Your task to perform on an android device: Go to Yahoo.com Image 0: 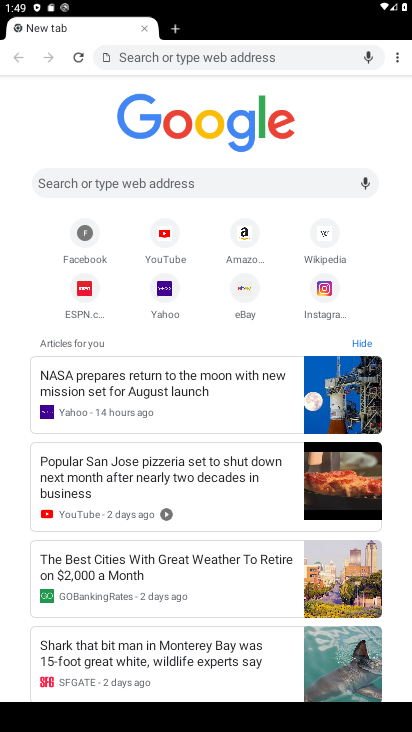
Step 0: click (160, 288)
Your task to perform on an android device: Go to Yahoo.com Image 1: 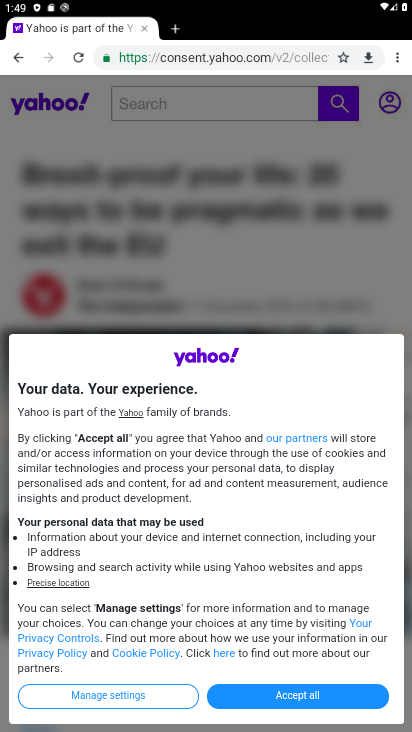
Step 1: click (364, 278)
Your task to perform on an android device: Go to Yahoo.com Image 2: 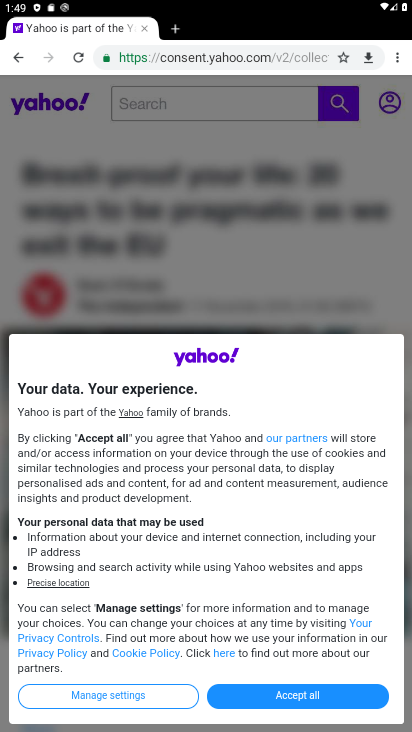
Step 2: task complete